Your task to perform on an android device: visit the assistant section in the google photos Image 0: 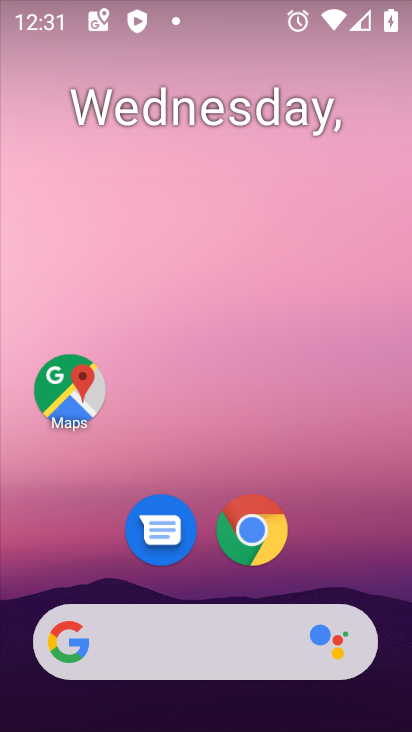
Step 0: drag from (210, 543) to (272, 207)
Your task to perform on an android device: visit the assistant section in the google photos Image 1: 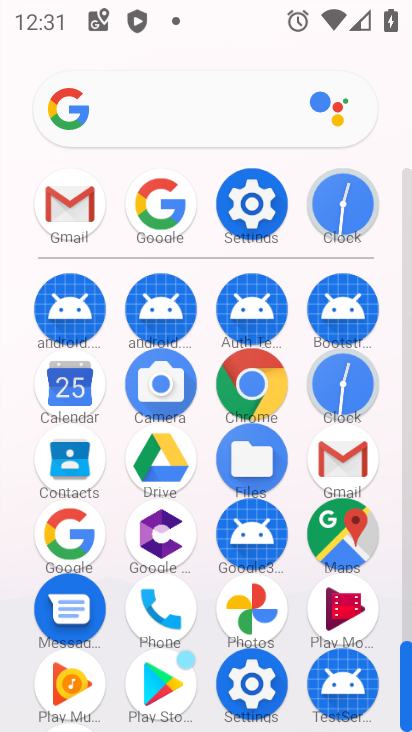
Step 1: click (252, 608)
Your task to perform on an android device: visit the assistant section in the google photos Image 2: 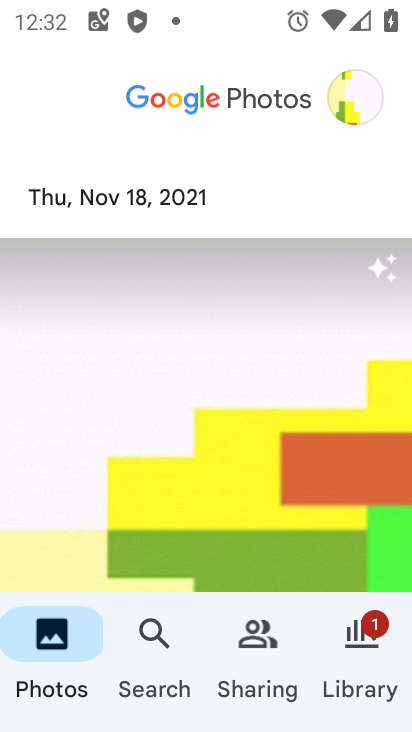
Step 2: click (152, 641)
Your task to perform on an android device: visit the assistant section in the google photos Image 3: 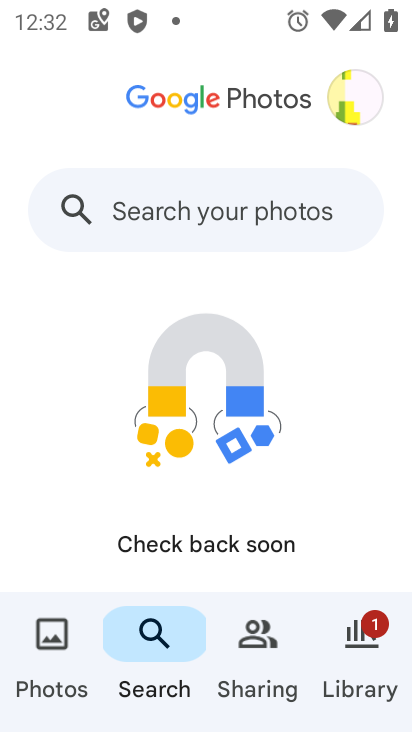
Step 3: click (149, 217)
Your task to perform on an android device: visit the assistant section in the google photos Image 4: 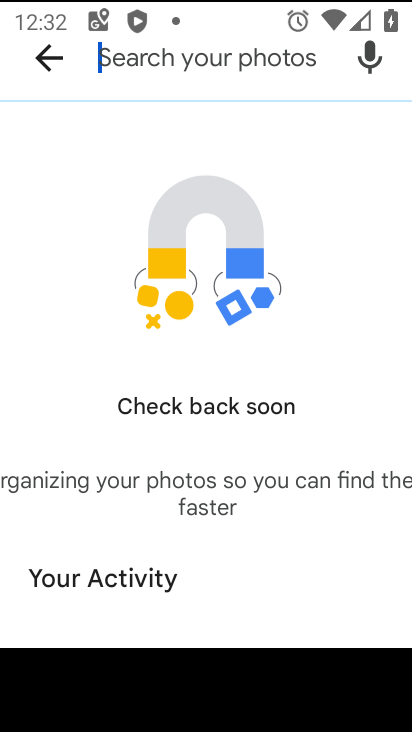
Step 4: type "Assistant"
Your task to perform on an android device: visit the assistant section in the google photos Image 5: 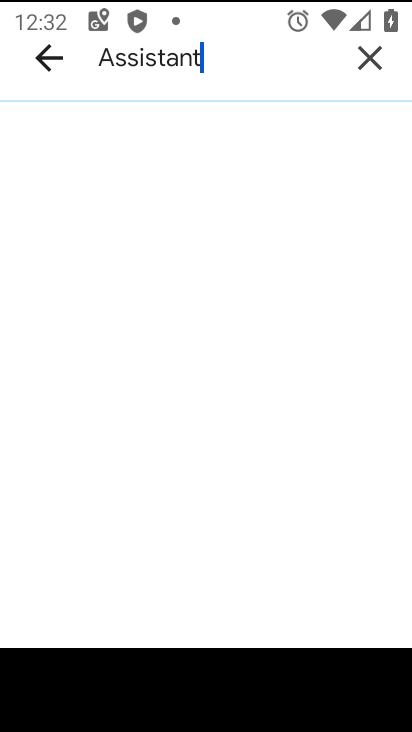
Step 5: task complete